Your task to perform on an android device: Go to notification settings Image 0: 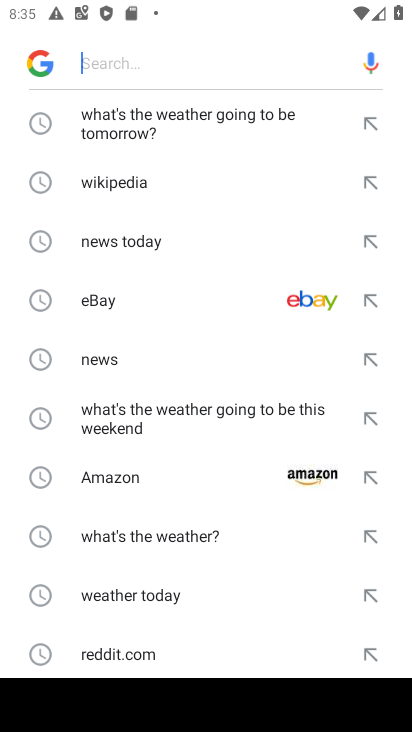
Step 0: press home button
Your task to perform on an android device: Go to notification settings Image 1: 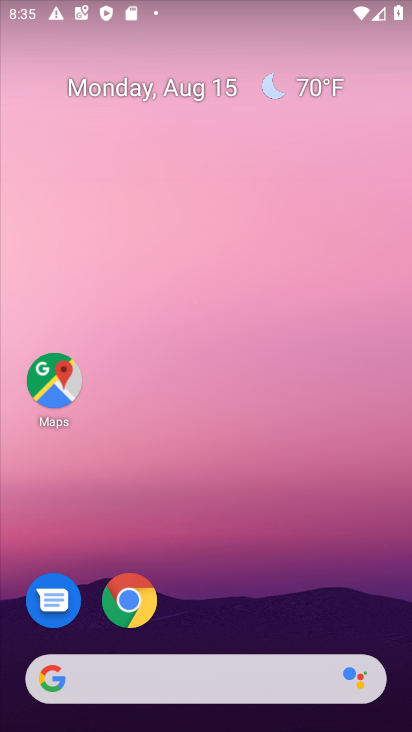
Step 1: drag from (239, 551) to (235, 14)
Your task to perform on an android device: Go to notification settings Image 2: 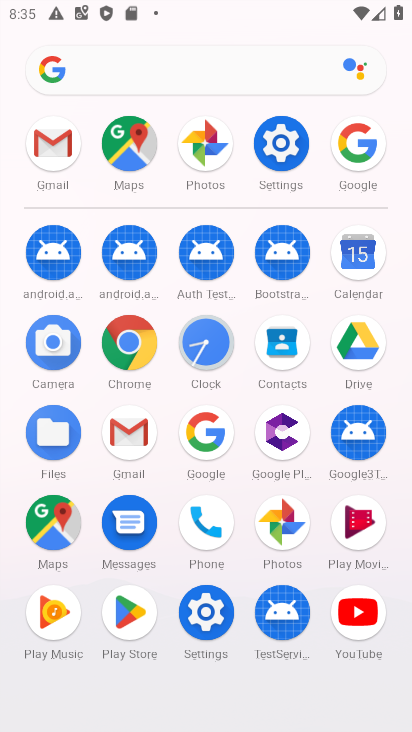
Step 2: click (274, 137)
Your task to perform on an android device: Go to notification settings Image 3: 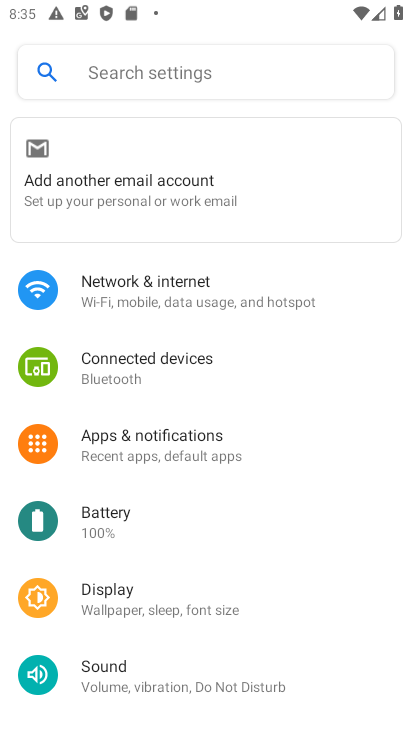
Step 3: click (150, 444)
Your task to perform on an android device: Go to notification settings Image 4: 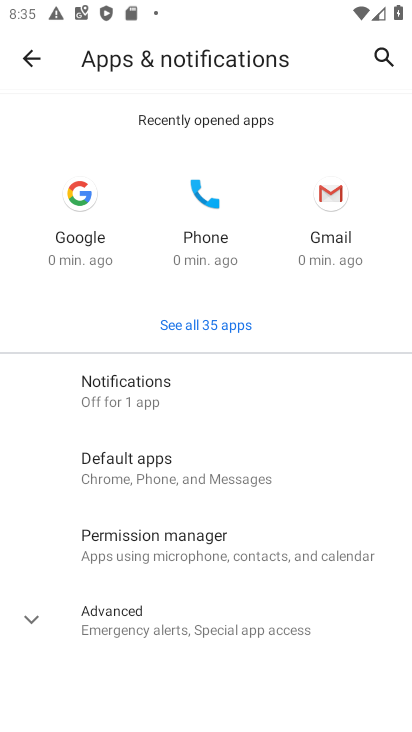
Step 4: click (121, 391)
Your task to perform on an android device: Go to notification settings Image 5: 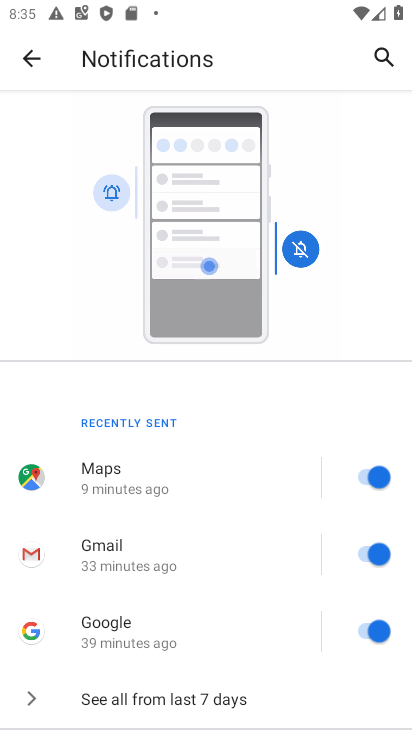
Step 5: task complete